Your task to perform on an android device: toggle location history Image 0: 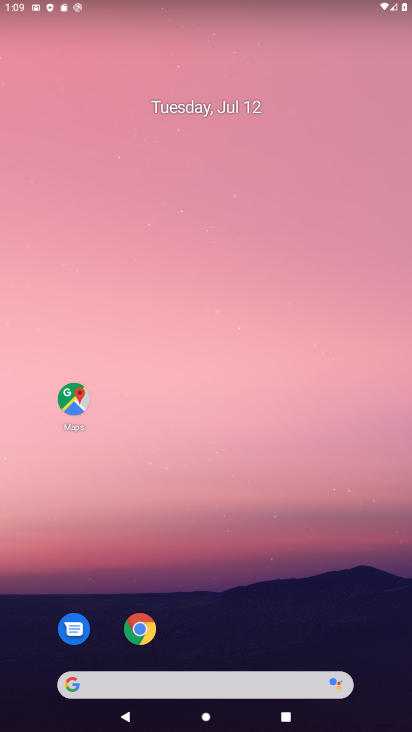
Step 0: drag from (310, 593) to (216, 17)
Your task to perform on an android device: toggle location history Image 1: 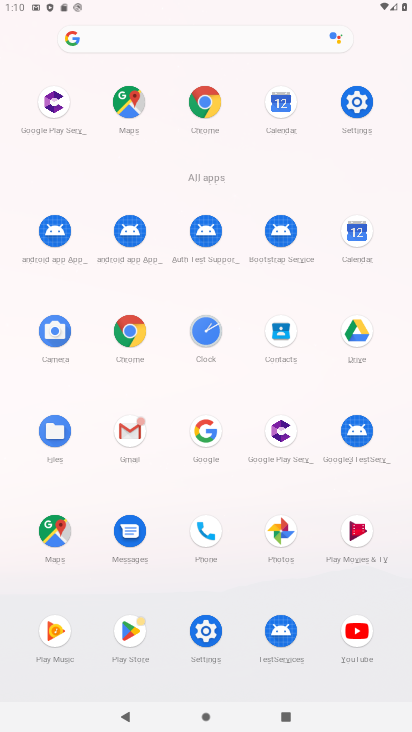
Step 1: click (367, 101)
Your task to perform on an android device: toggle location history Image 2: 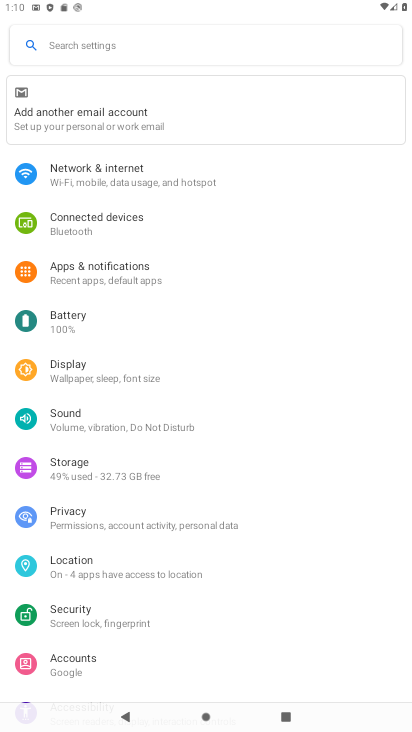
Step 2: click (79, 568)
Your task to perform on an android device: toggle location history Image 3: 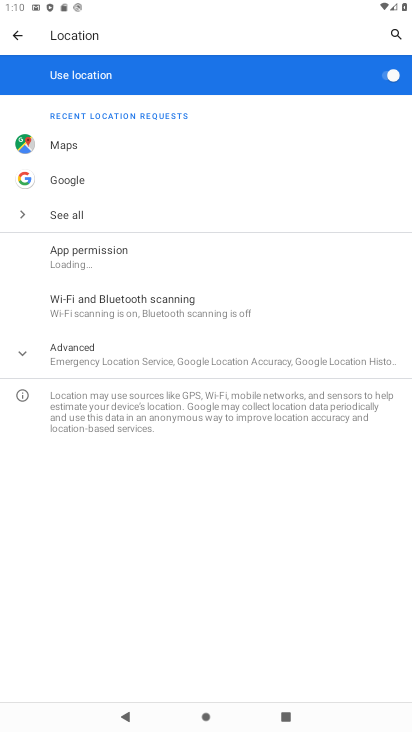
Step 3: click (91, 348)
Your task to perform on an android device: toggle location history Image 4: 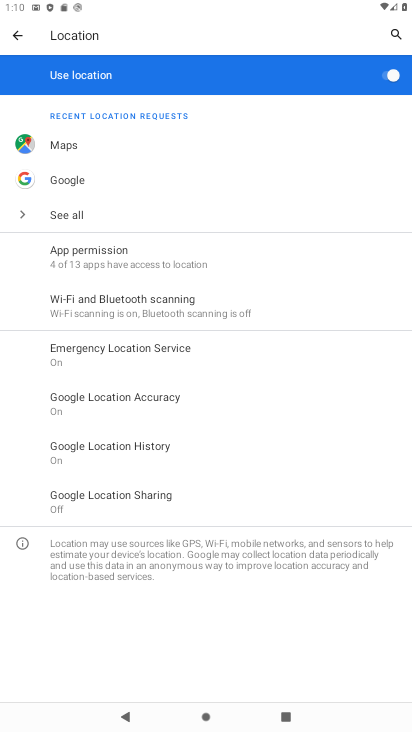
Step 4: click (155, 440)
Your task to perform on an android device: toggle location history Image 5: 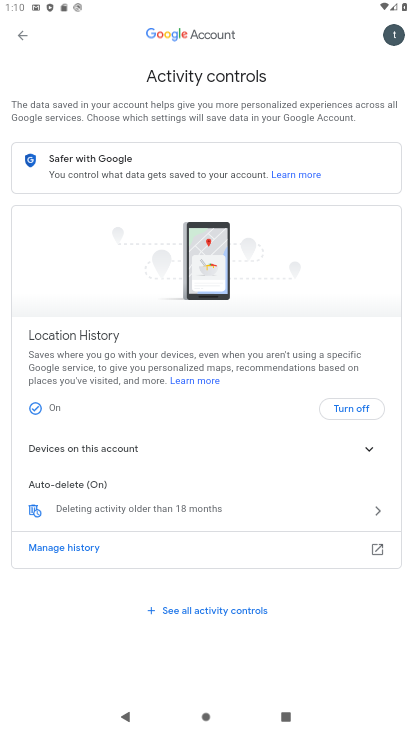
Step 5: click (354, 404)
Your task to perform on an android device: toggle location history Image 6: 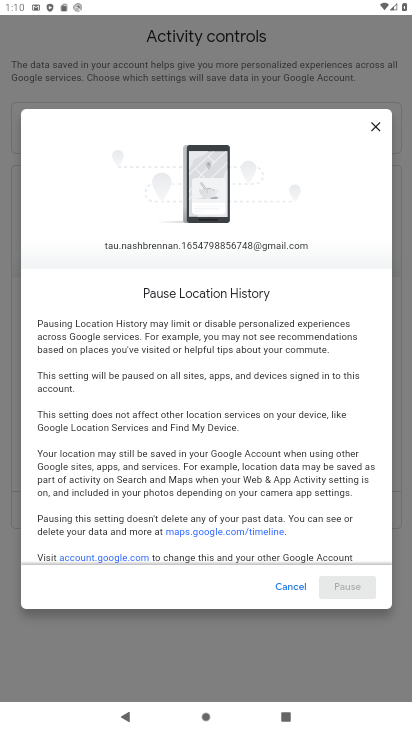
Step 6: drag from (282, 497) to (260, 157)
Your task to perform on an android device: toggle location history Image 7: 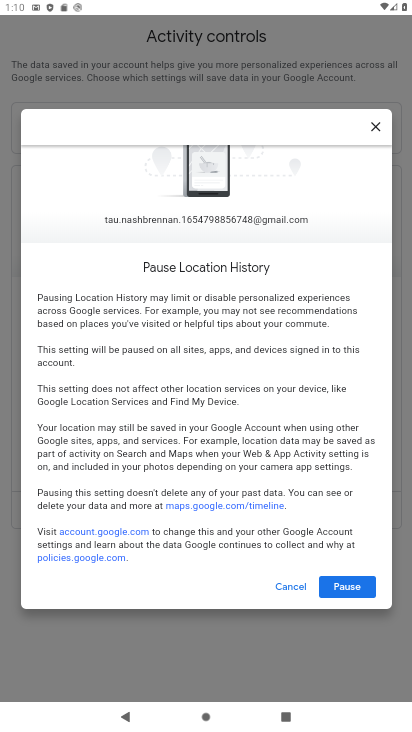
Step 7: click (359, 585)
Your task to perform on an android device: toggle location history Image 8: 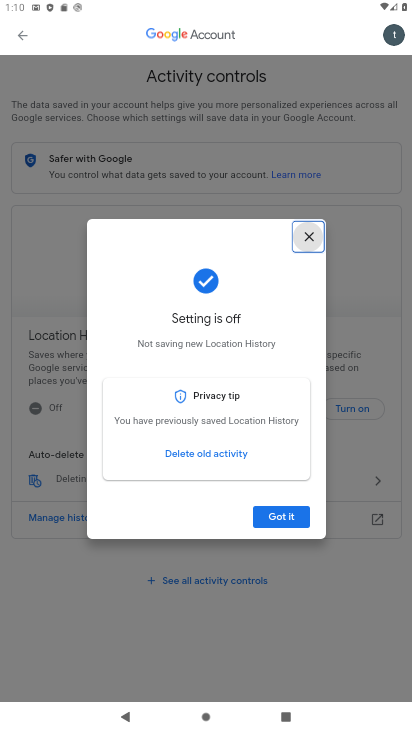
Step 8: task complete